Your task to perform on an android device: Open settings on Google Maps Image 0: 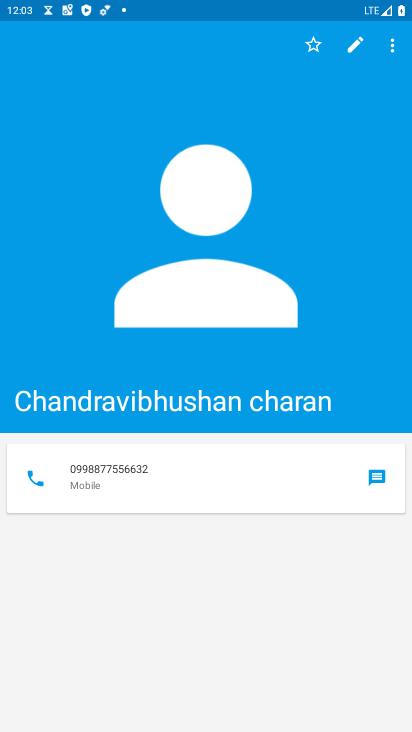
Step 0: press back button
Your task to perform on an android device: Open settings on Google Maps Image 1: 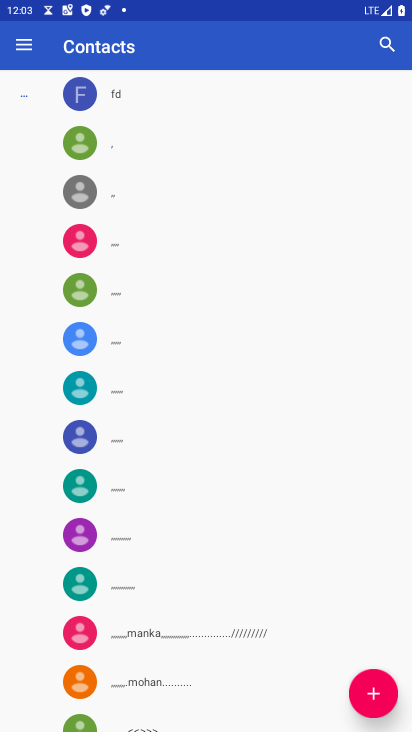
Step 1: press back button
Your task to perform on an android device: Open settings on Google Maps Image 2: 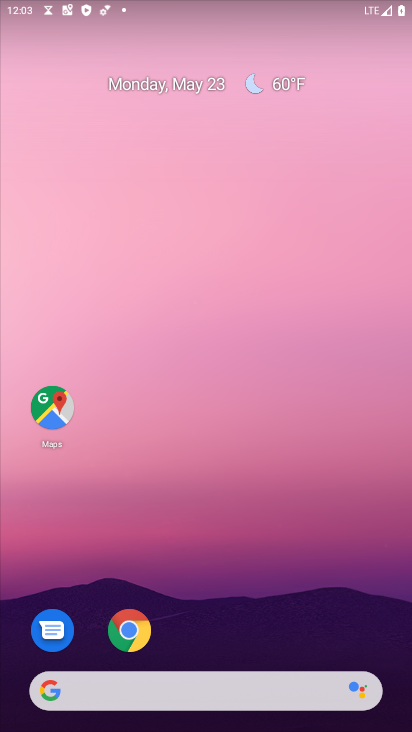
Step 2: click (53, 408)
Your task to perform on an android device: Open settings on Google Maps Image 3: 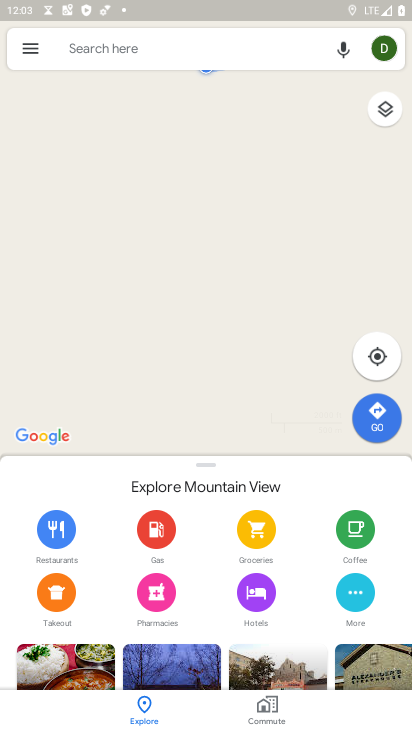
Step 3: click (31, 53)
Your task to perform on an android device: Open settings on Google Maps Image 4: 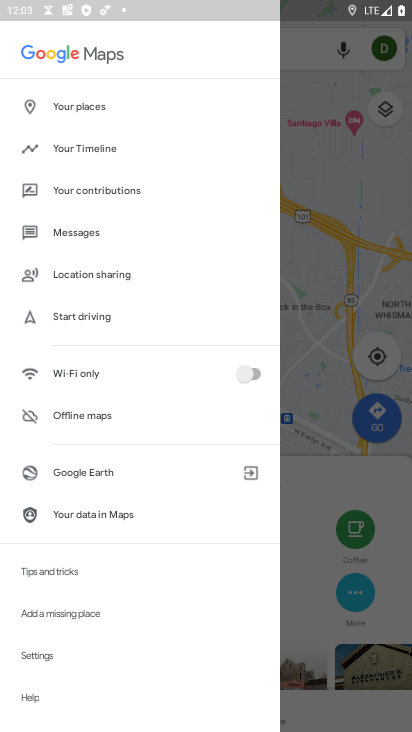
Step 4: click (52, 660)
Your task to perform on an android device: Open settings on Google Maps Image 5: 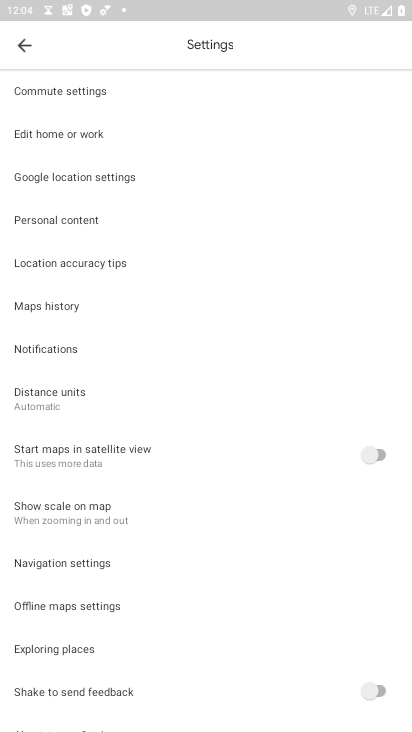
Step 5: task complete